Your task to perform on an android device: Open network settings Image 0: 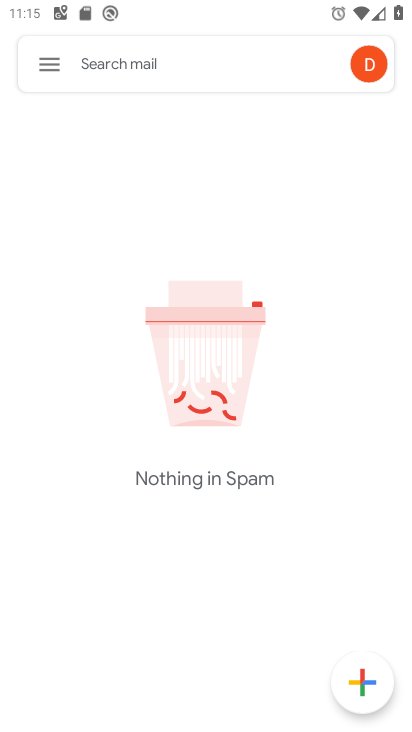
Step 0: press home button
Your task to perform on an android device: Open network settings Image 1: 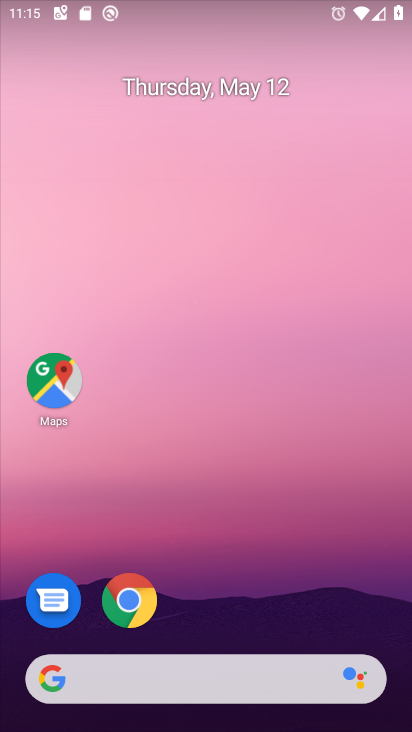
Step 1: drag from (245, 564) to (249, 133)
Your task to perform on an android device: Open network settings Image 2: 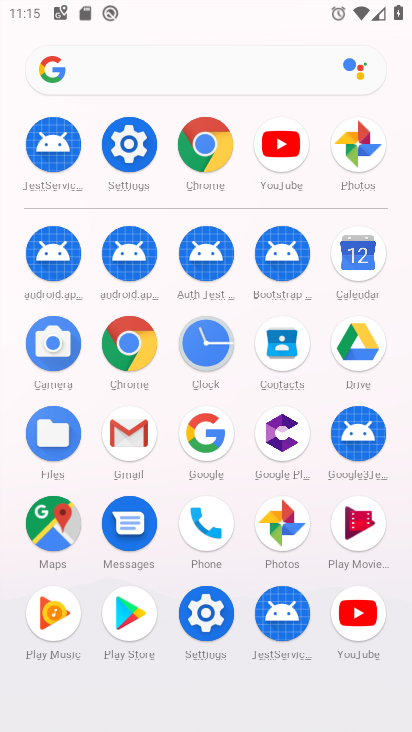
Step 2: click (222, 618)
Your task to perform on an android device: Open network settings Image 3: 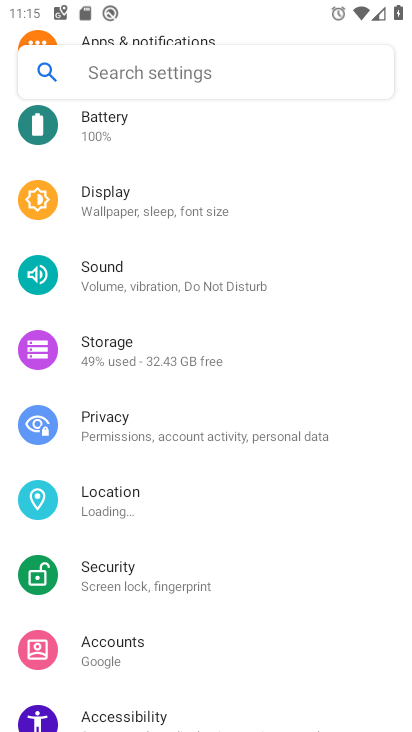
Step 3: drag from (204, 204) to (182, 622)
Your task to perform on an android device: Open network settings Image 4: 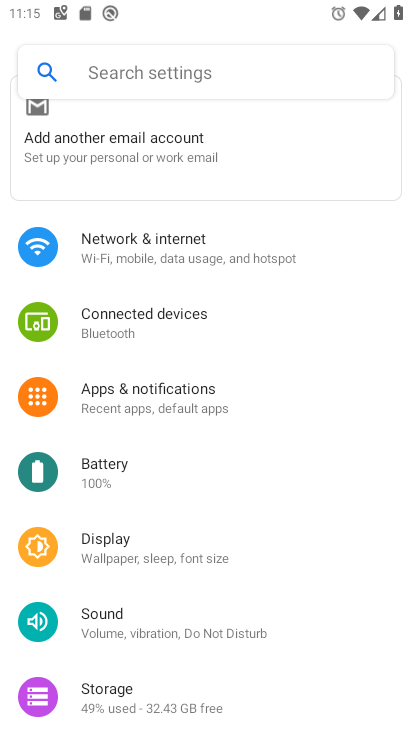
Step 4: click (195, 245)
Your task to perform on an android device: Open network settings Image 5: 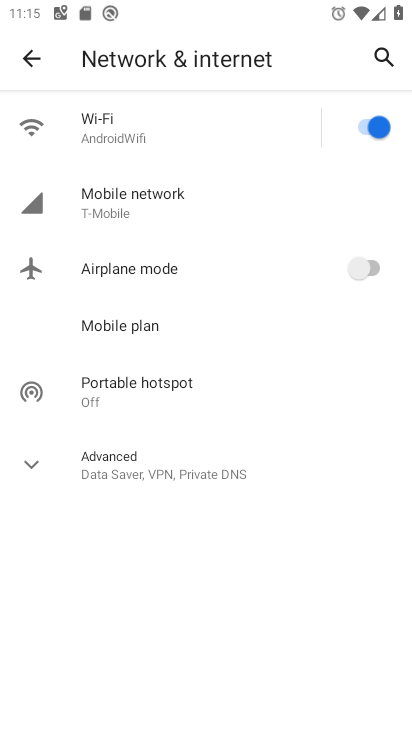
Step 5: click (151, 208)
Your task to perform on an android device: Open network settings Image 6: 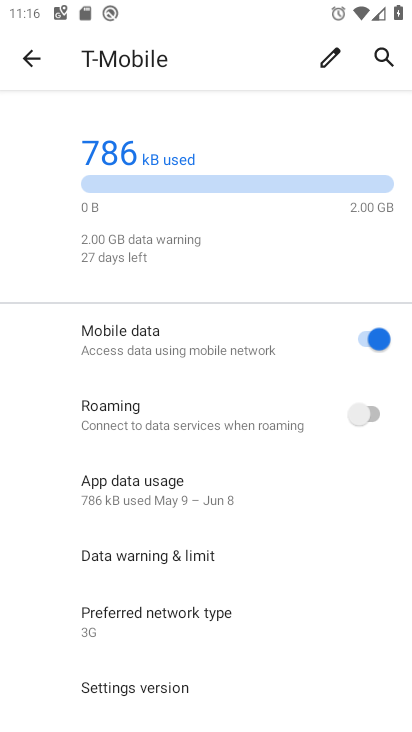
Step 6: task complete